Your task to perform on an android device: turn off notifications in google photos Image 0: 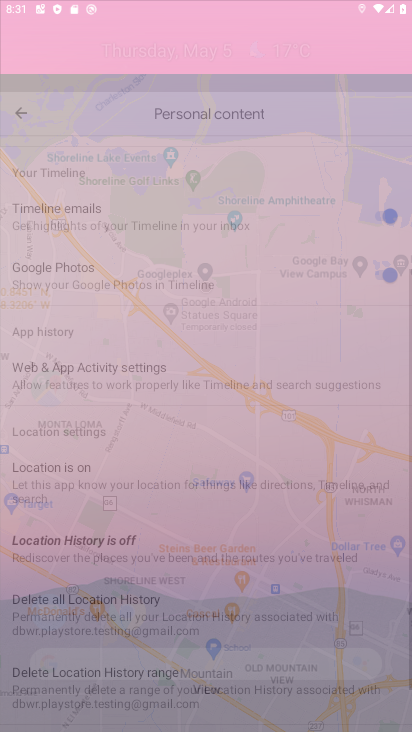
Step 0: drag from (203, 626) to (168, 280)
Your task to perform on an android device: turn off notifications in google photos Image 1: 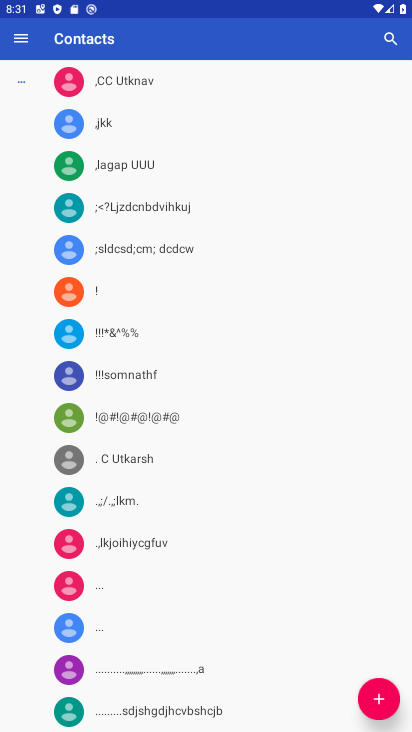
Step 1: press home button
Your task to perform on an android device: turn off notifications in google photos Image 2: 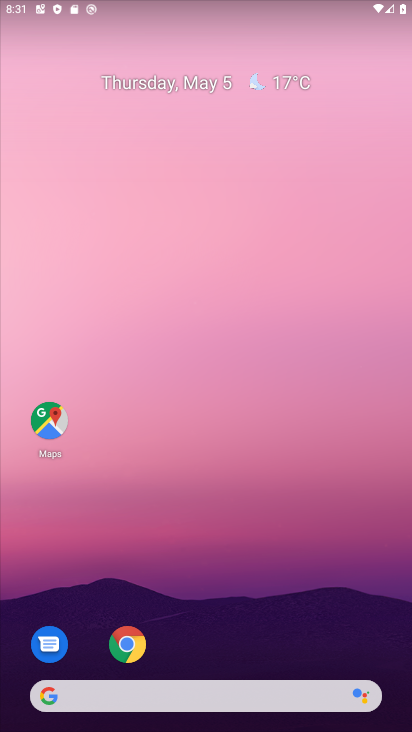
Step 2: drag from (227, 652) to (259, 200)
Your task to perform on an android device: turn off notifications in google photos Image 3: 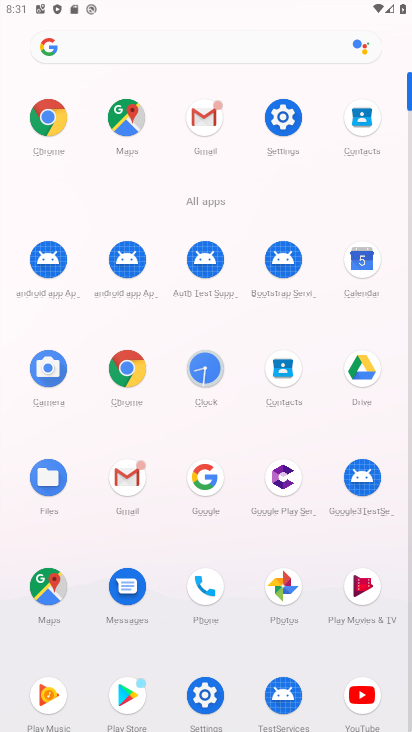
Step 3: click (269, 580)
Your task to perform on an android device: turn off notifications in google photos Image 4: 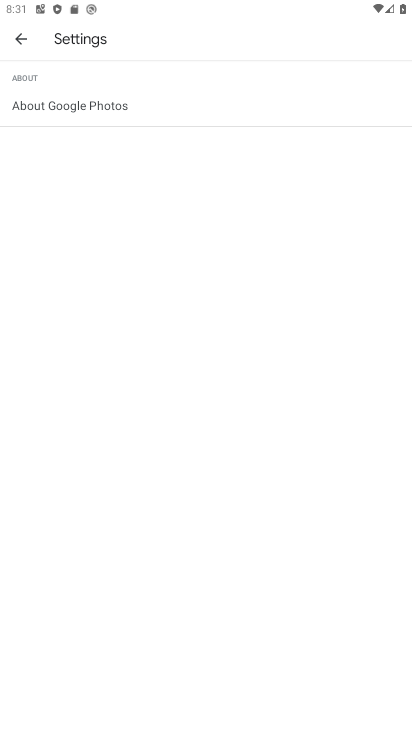
Step 4: click (13, 38)
Your task to perform on an android device: turn off notifications in google photos Image 5: 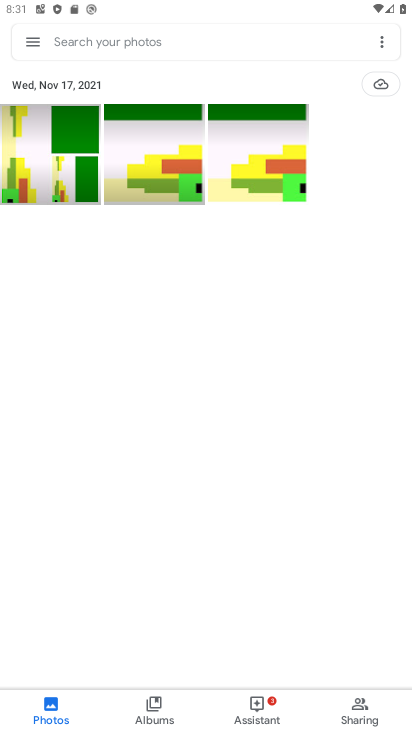
Step 5: click (30, 47)
Your task to perform on an android device: turn off notifications in google photos Image 6: 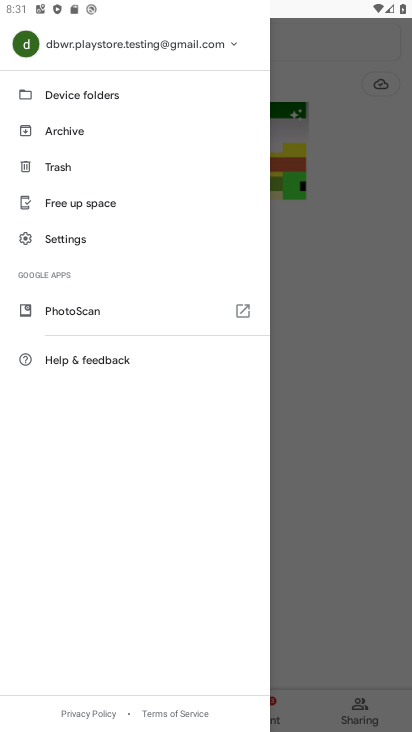
Step 6: click (124, 236)
Your task to perform on an android device: turn off notifications in google photos Image 7: 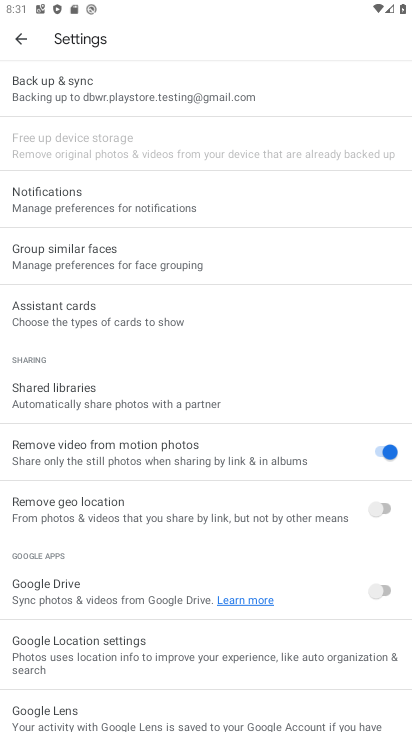
Step 7: click (223, 220)
Your task to perform on an android device: turn off notifications in google photos Image 8: 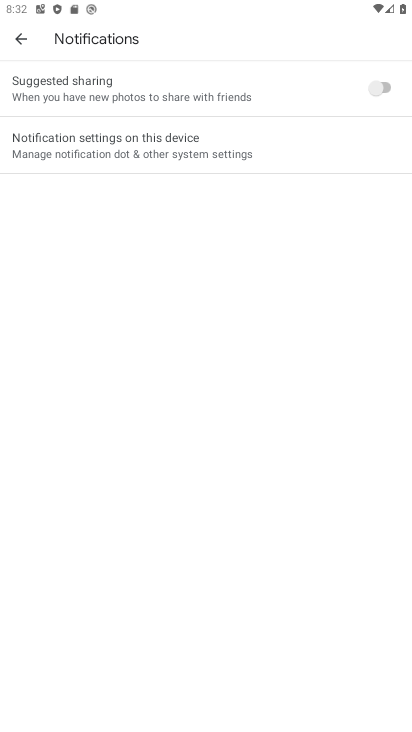
Step 8: click (250, 156)
Your task to perform on an android device: turn off notifications in google photos Image 9: 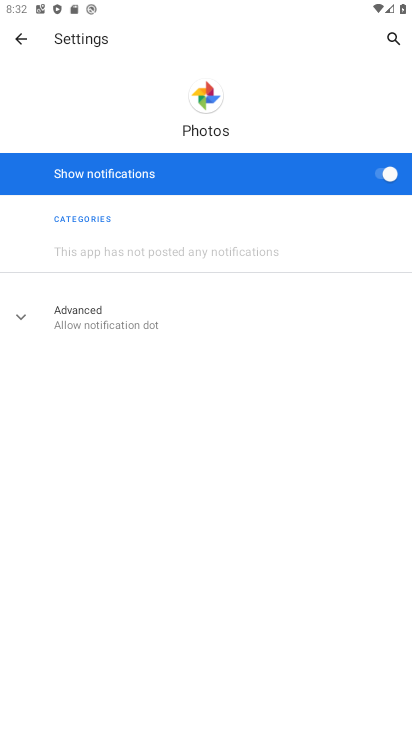
Step 9: click (373, 167)
Your task to perform on an android device: turn off notifications in google photos Image 10: 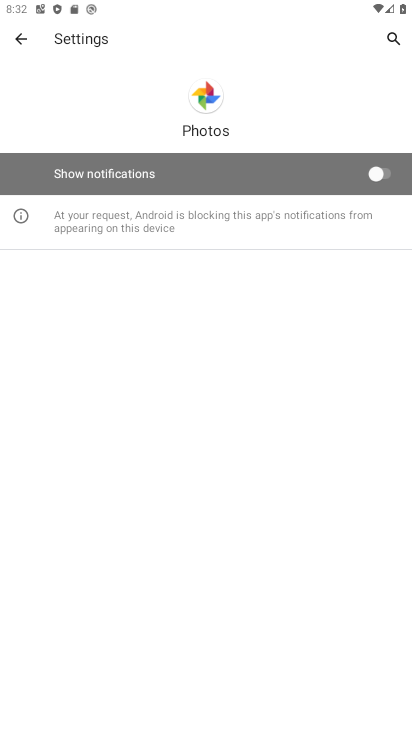
Step 10: task complete